Your task to perform on an android device: When is my next appointment? Image 0: 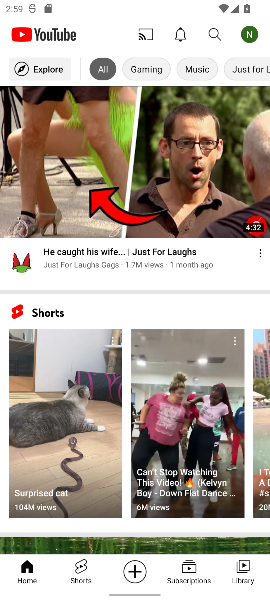
Step 0: click (239, 309)
Your task to perform on an android device: When is my next appointment? Image 1: 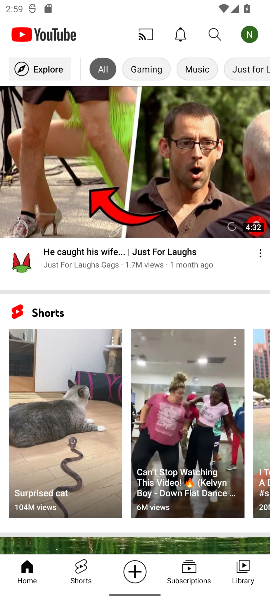
Step 1: press home button
Your task to perform on an android device: When is my next appointment? Image 2: 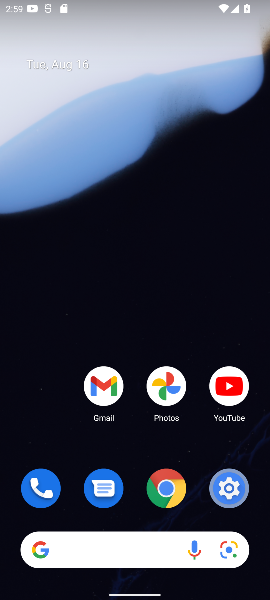
Step 2: drag from (54, 406) to (64, 142)
Your task to perform on an android device: When is my next appointment? Image 3: 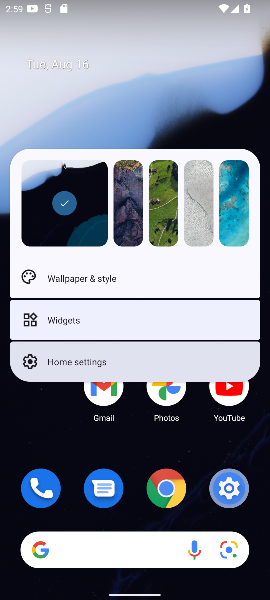
Step 3: click (49, 397)
Your task to perform on an android device: When is my next appointment? Image 4: 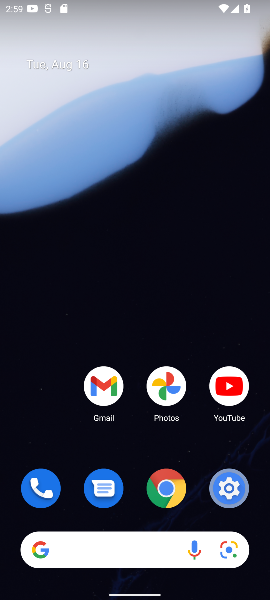
Step 4: drag from (140, 336) to (158, 104)
Your task to perform on an android device: When is my next appointment? Image 5: 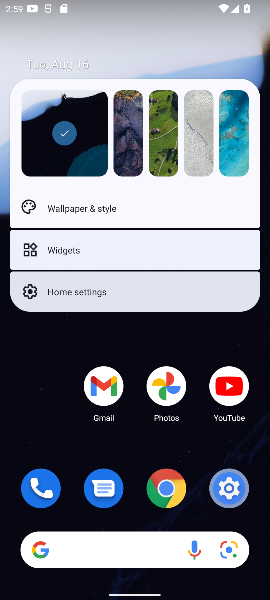
Step 5: click (139, 338)
Your task to perform on an android device: When is my next appointment? Image 6: 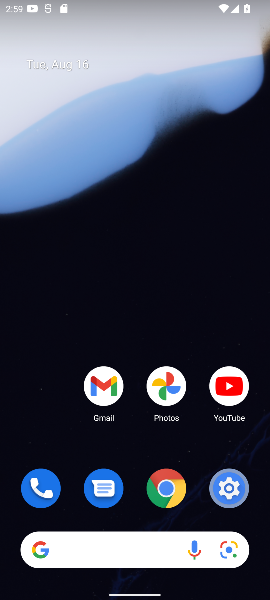
Step 6: drag from (139, 338) to (146, 117)
Your task to perform on an android device: When is my next appointment? Image 7: 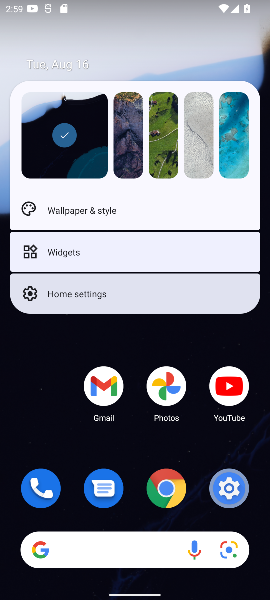
Step 7: click (121, 350)
Your task to perform on an android device: When is my next appointment? Image 8: 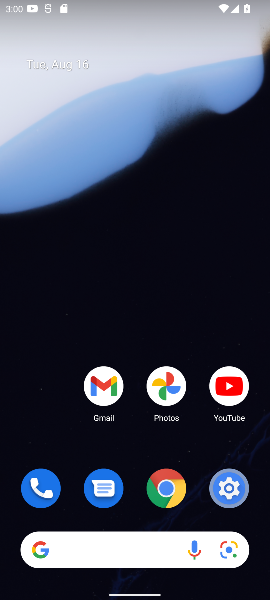
Step 8: task complete